Your task to perform on an android device: Go to network settings Image 0: 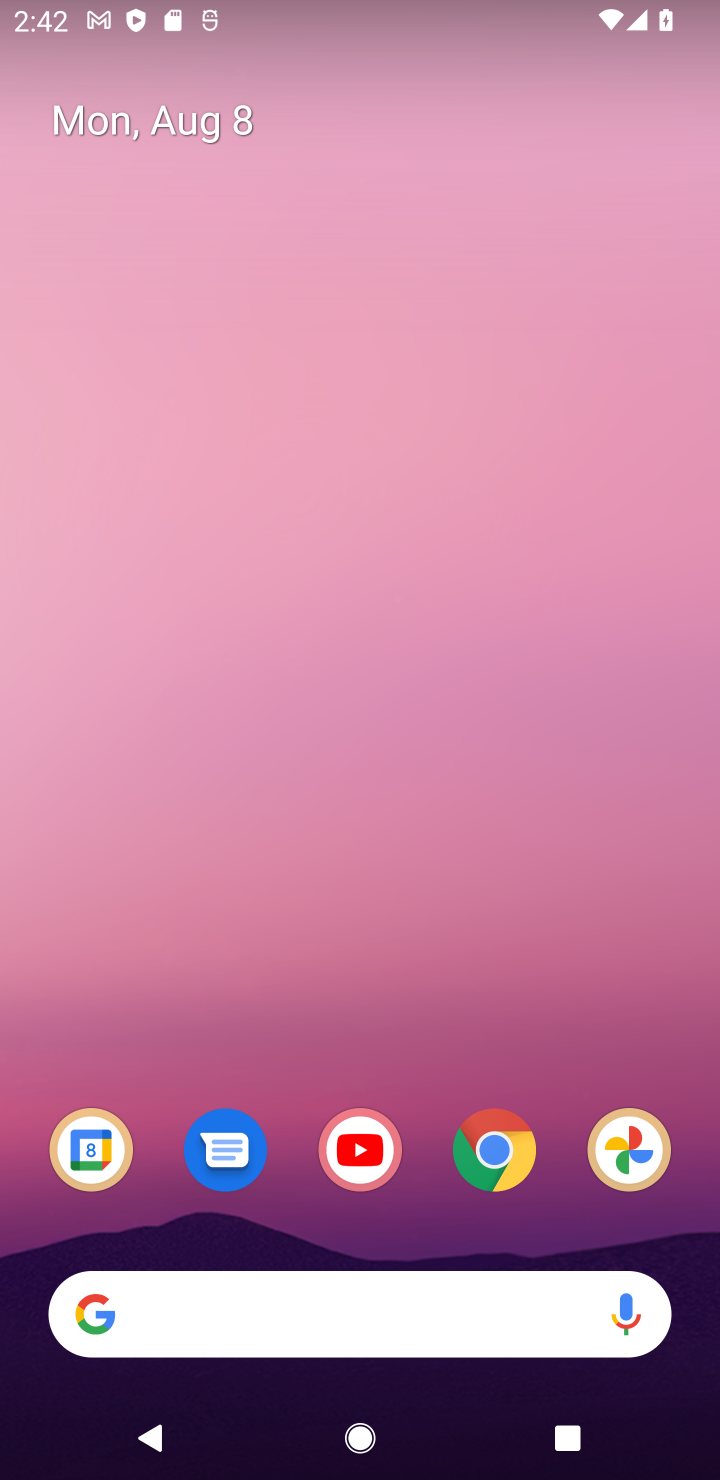
Step 0: click (668, 1179)
Your task to perform on an android device: Go to network settings Image 1: 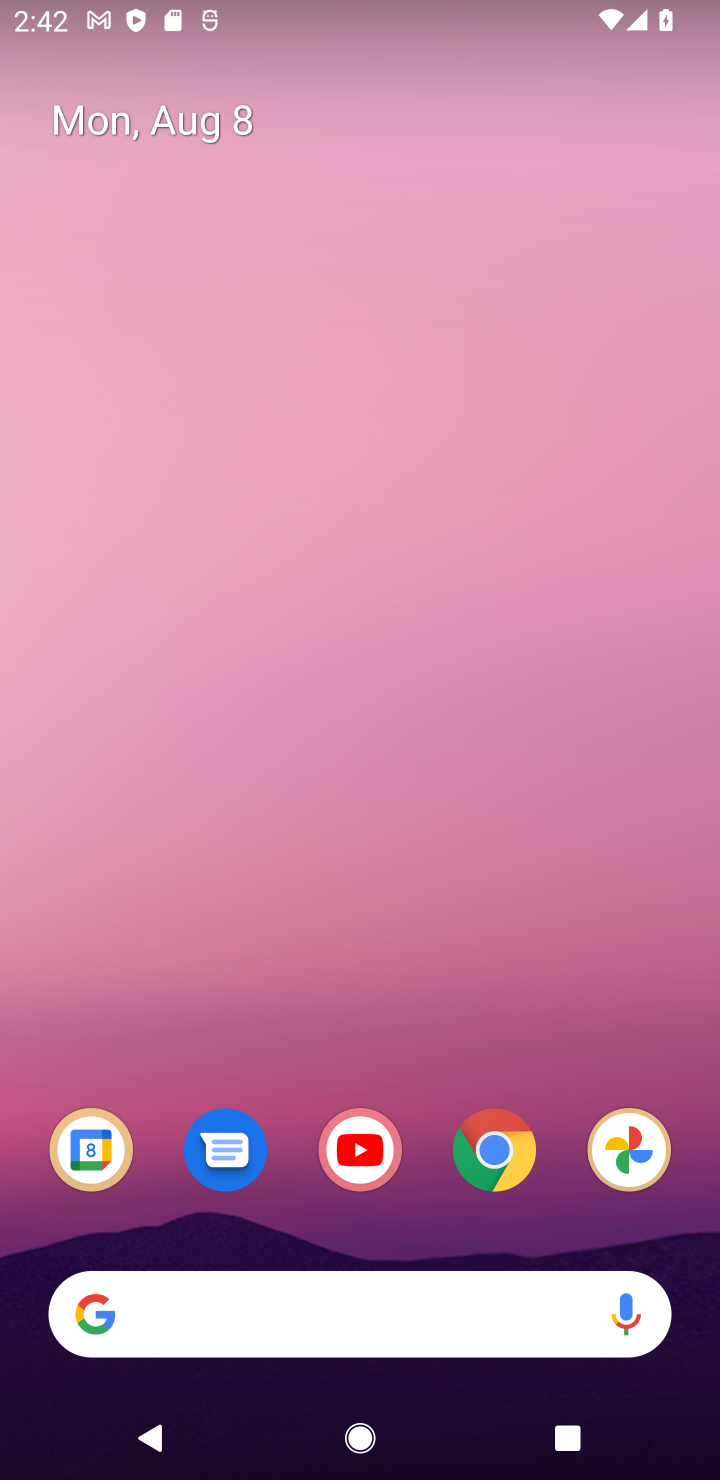
Step 1: drag from (568, 1239) to (613, 116)
Your task to perform on an android device: Go to network settings Image 2: 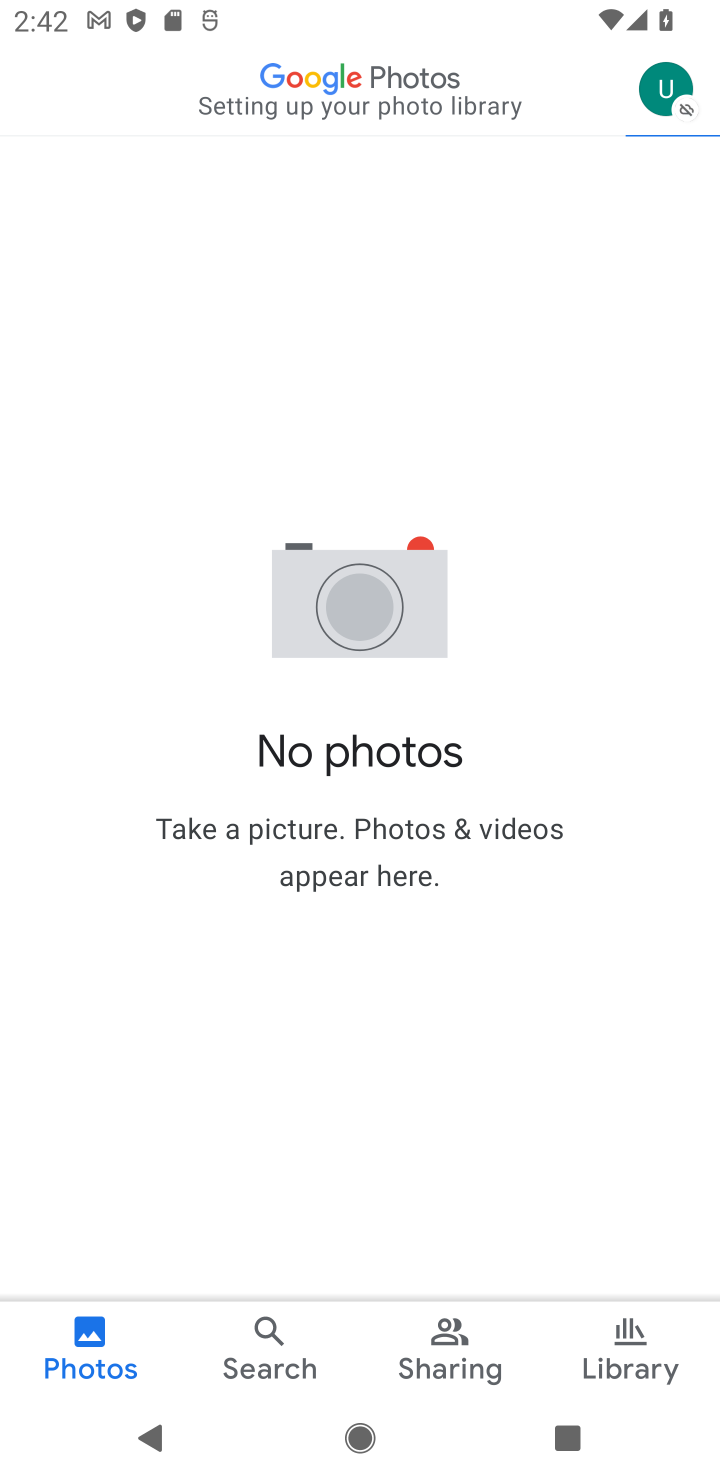
Step 2: press home button
Your task to perform on an android device: Go to network settings Image 3: 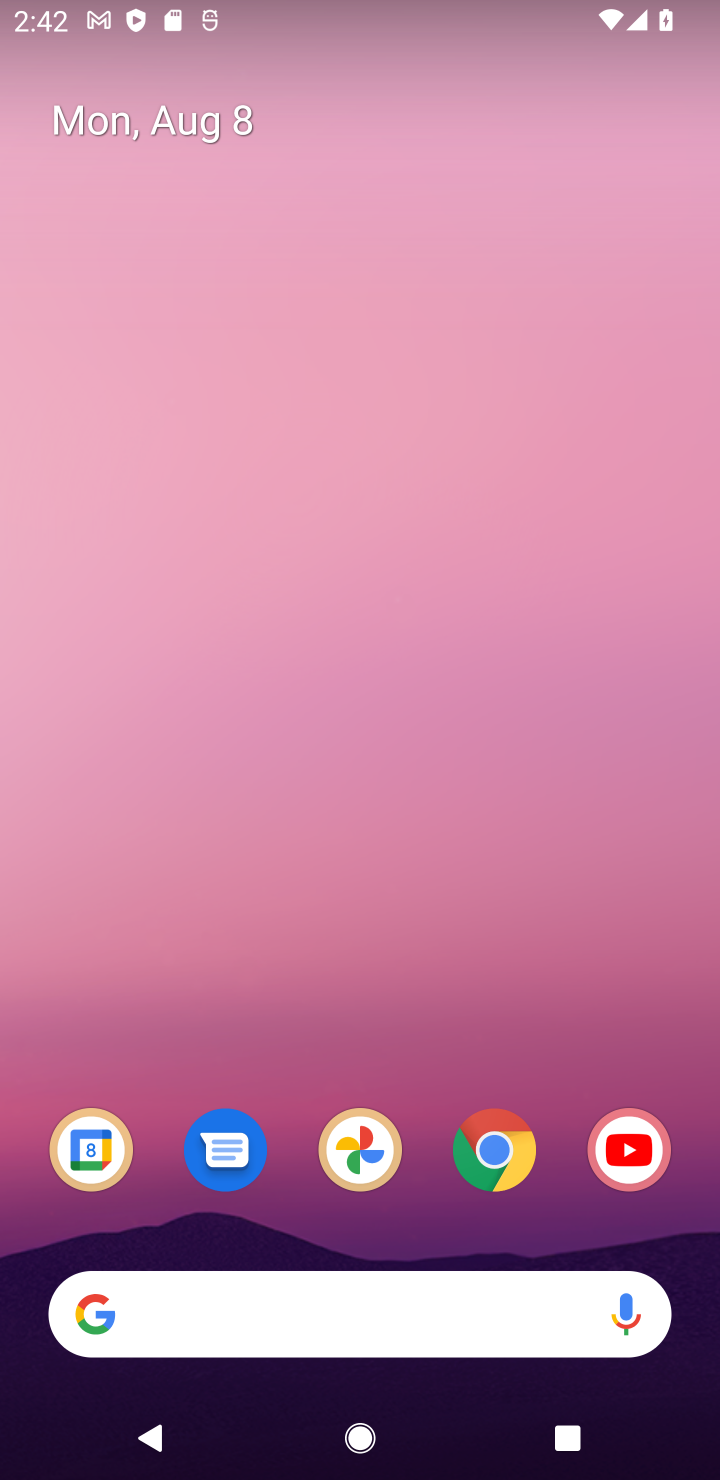
Step 3: drag from (422, 1200) to (509, 15)
Your task to perform on an android device: Go to network settings Image 4: 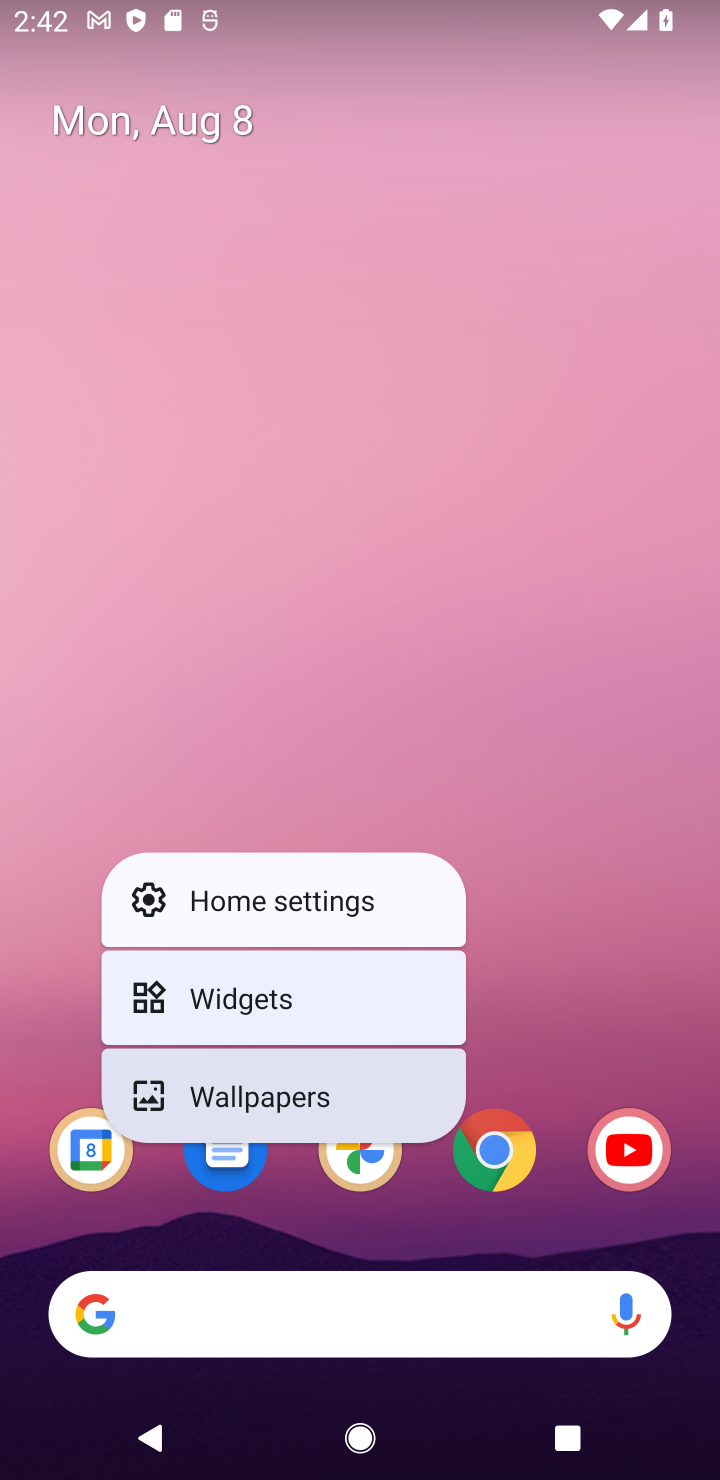
Step 4: click (412, 501)
Your task to perform on an android device: Go to network settings Image 5: 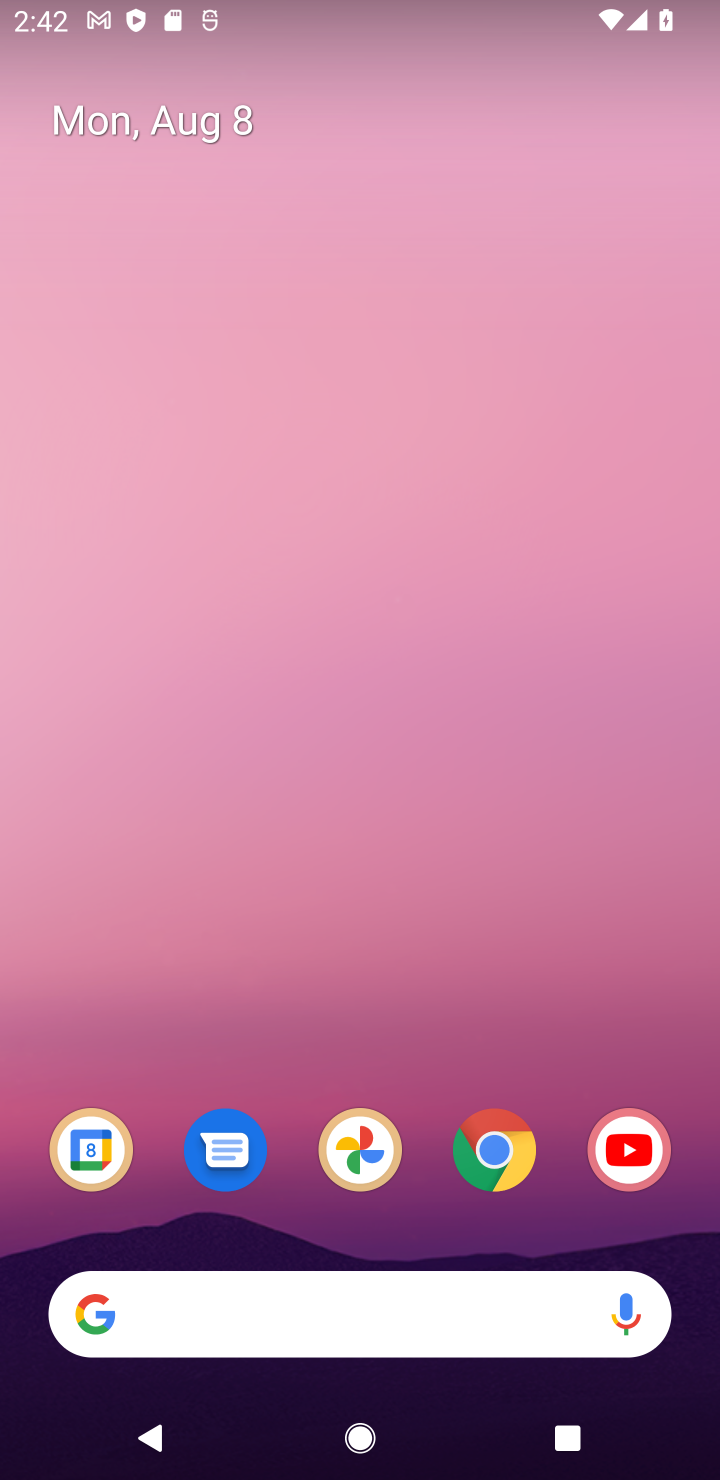
Step 5: drag from (301, 1216) to (276, 101)
Your task to perform on an android device: Go to network settings Image 6: 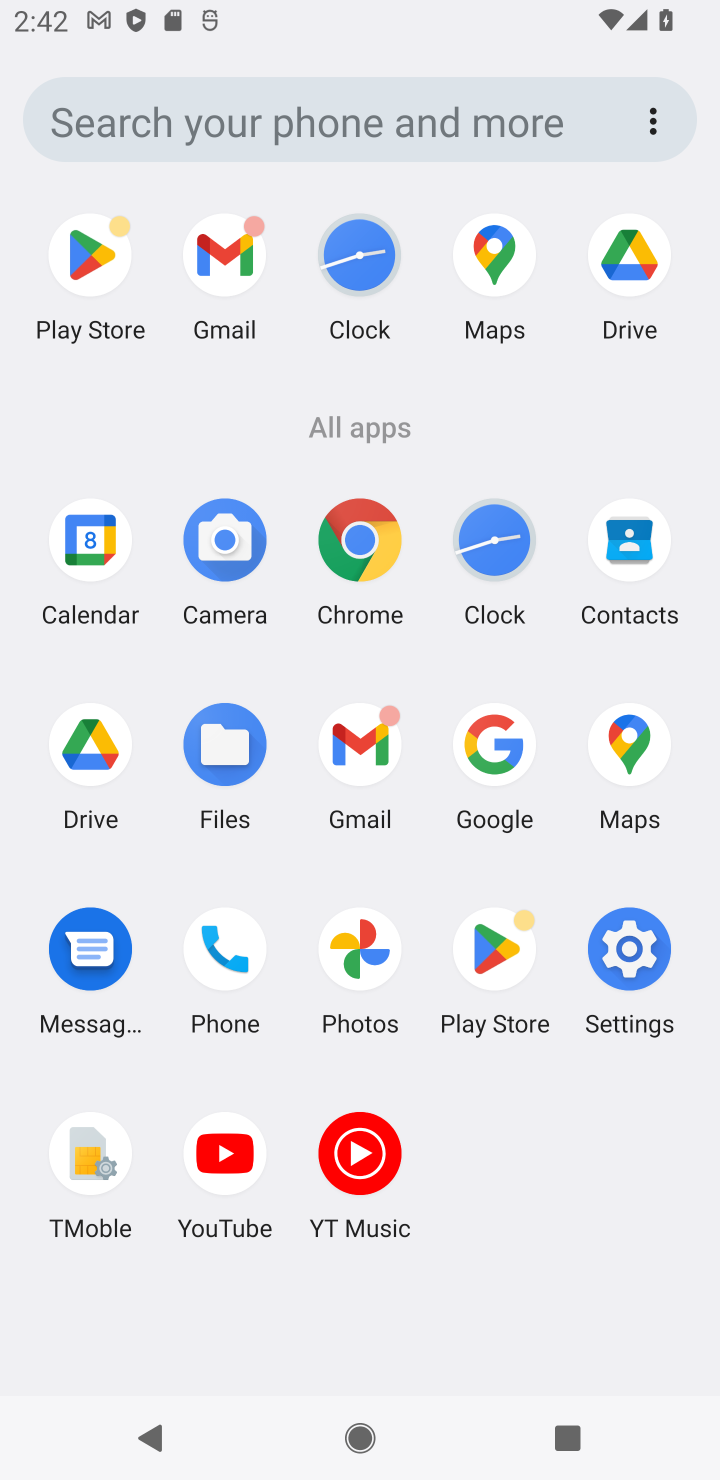
Step 6: click (604, 906)
Your task to perform on an android device: Go to network settings Image 7: 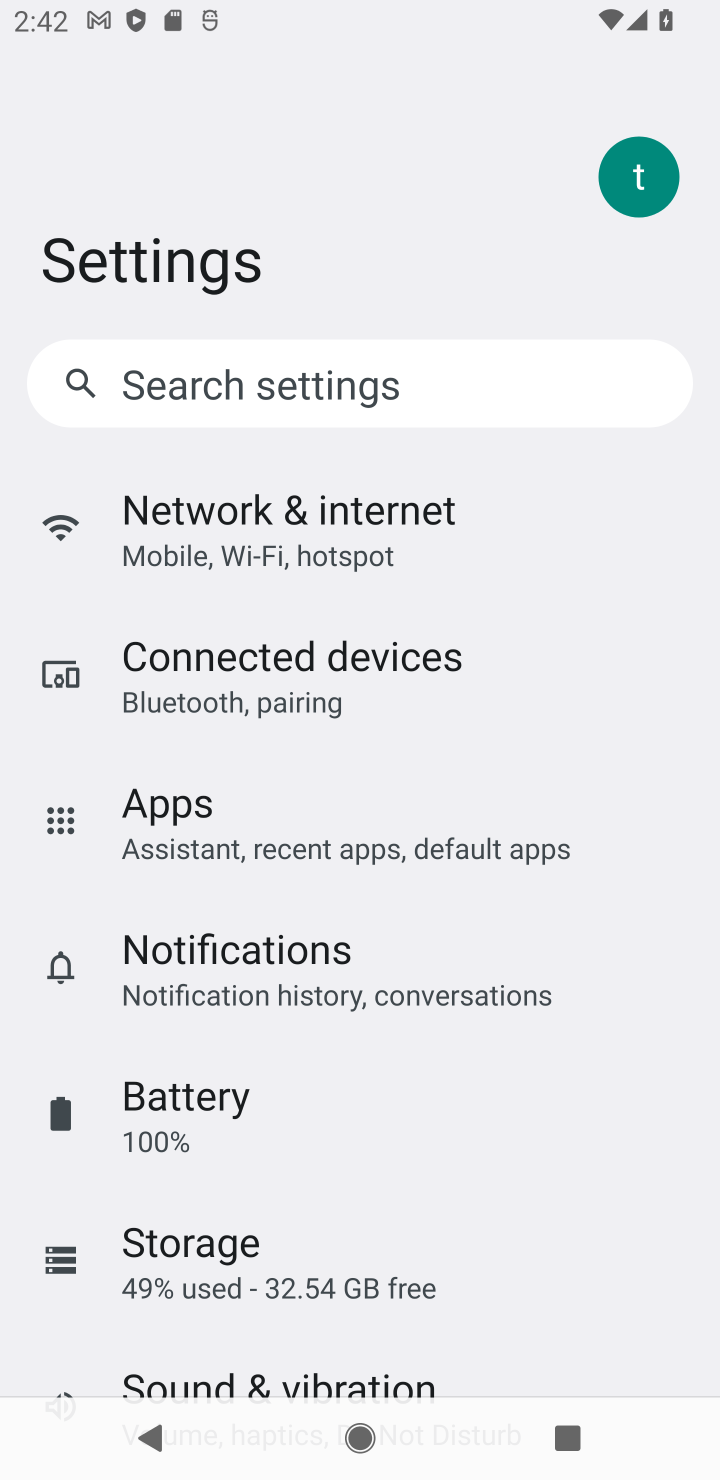
Step 7: click (504, 549)
Your task to perform on an android device: Go to network settings Image 8: 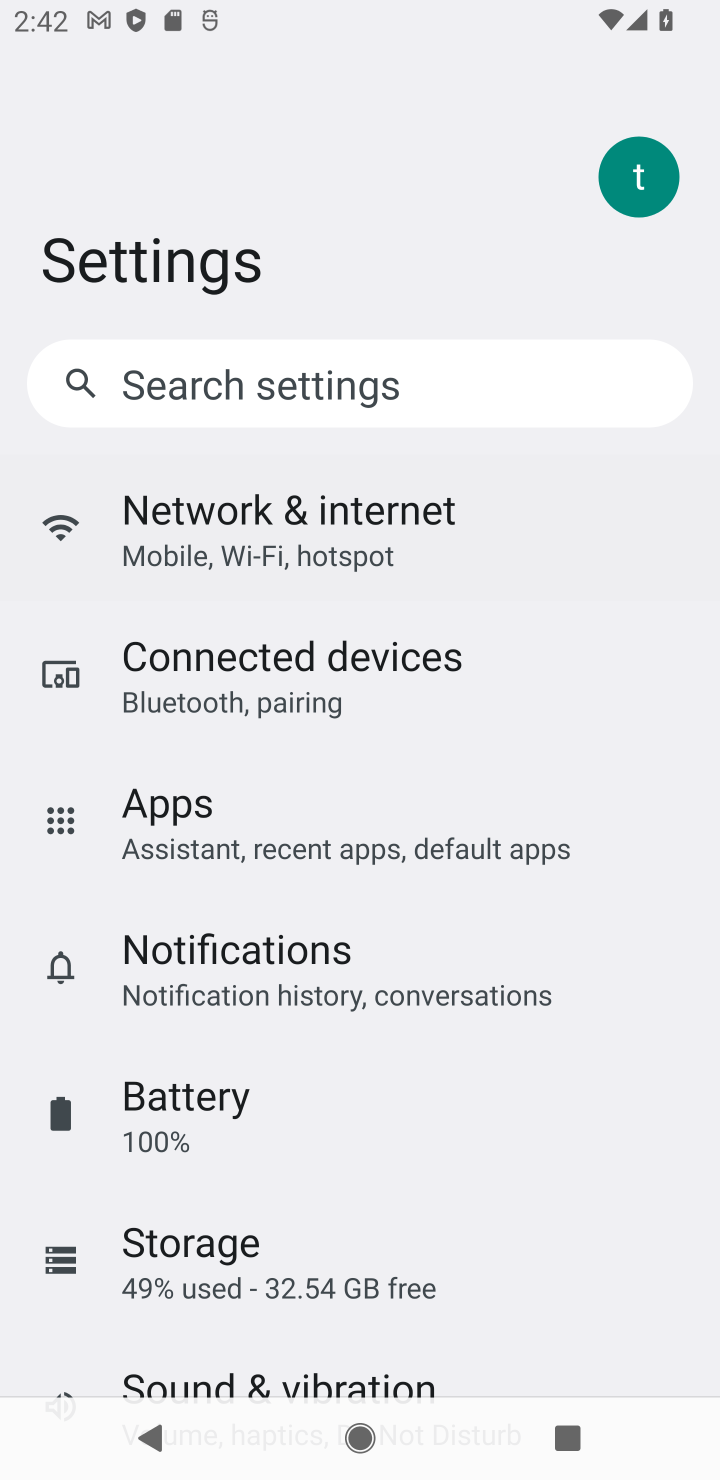
Step 8: task complete